Your task to perform on an android device: install app "HBO Max: Stream TV & Movies" Image 0: 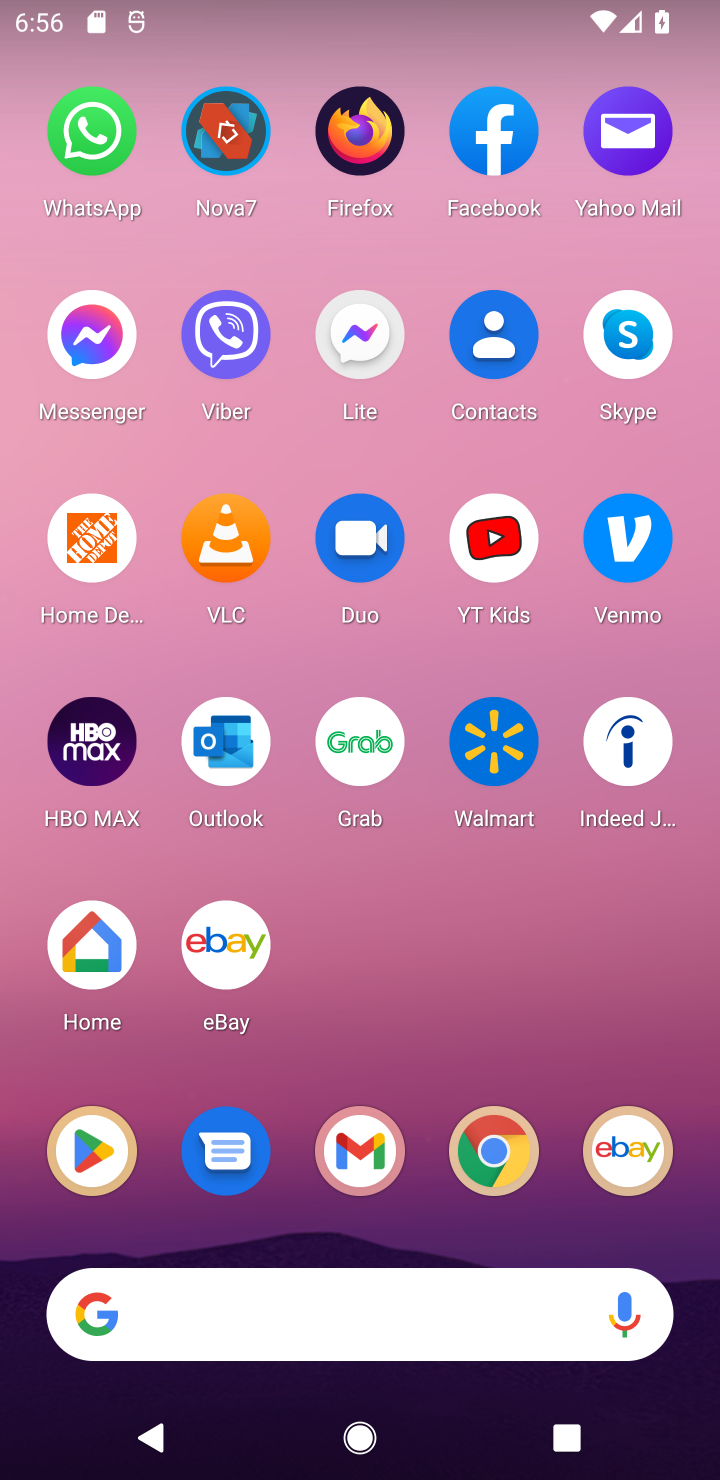
Step 0: task complete